Your task to perform on an android device: install app "PUBG MOBILE" Image 0: 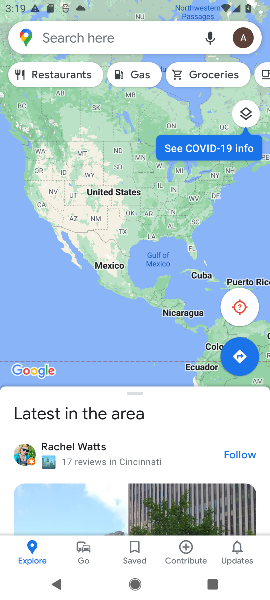
Step 0: press home button
Your task to perform on an android device: install app "PUBG MOBILE" Image 1: 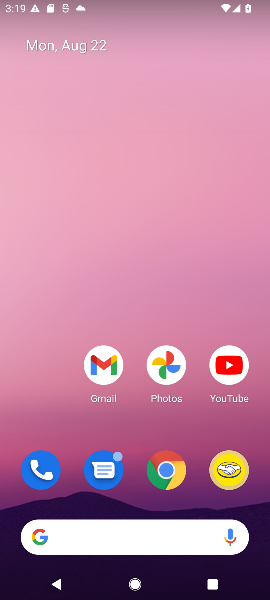
Step 1: drag from (70, 491) to (147, 125)
Your task to perform on an android device: install app "PUBG MOBILE" Image 2: 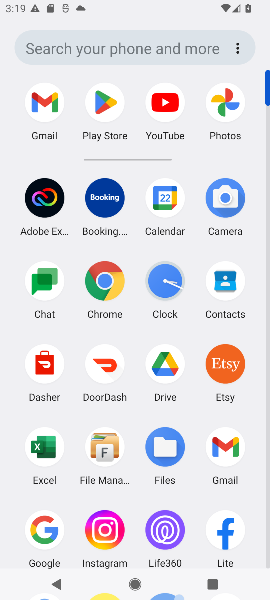
Step 2: click (99, 98)
Your task to perform on an android device: install app "PUBG MOBILE" Image 3: 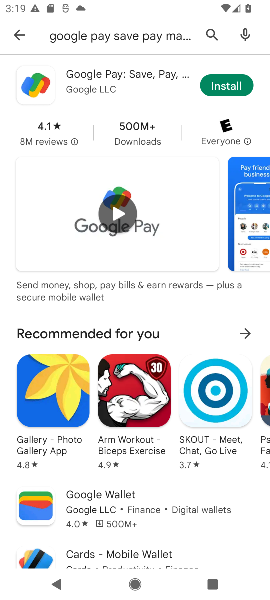
Step 3: click (23, 33)
Your task to perform on an android device: install app "PUBG MOBILE" Image 4: 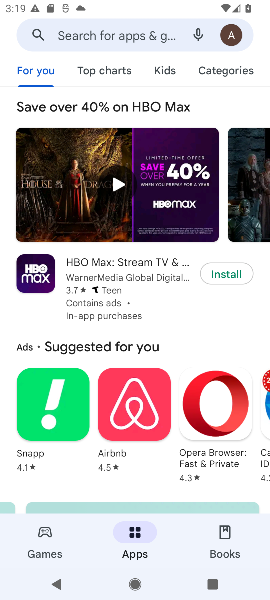
Step 4: click (121, 36)
Your task to perform on an android device: install app "PUBG MOBILE" Image 5: 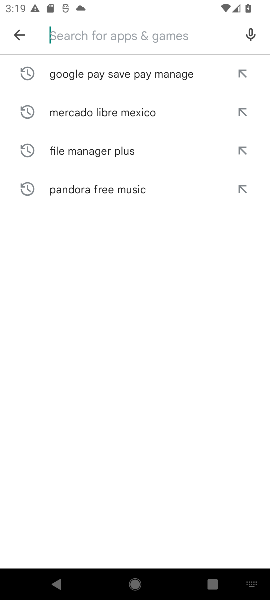
Step 5: type "PUBG MOBILE "
Your task to perform on an android device: install app "PUBG MOBILE" Image 6: 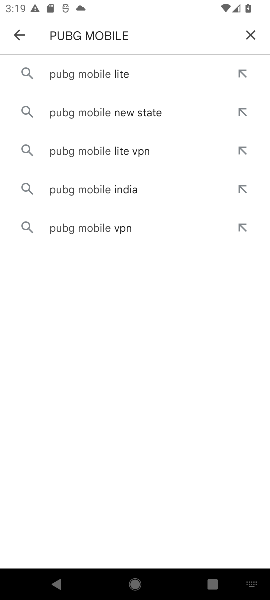
Step 6: drag from (106, 76) to (131, 108)
Your task to perform on an android device: install app "PUBG MOBILE" Image 7: 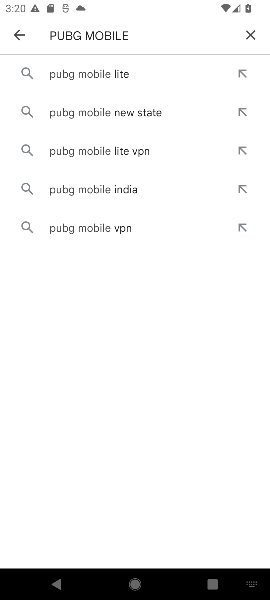
Step 7: click (128, 60)
Your task to perform on an android device: install app "PUBG MOBILE" Image 8: 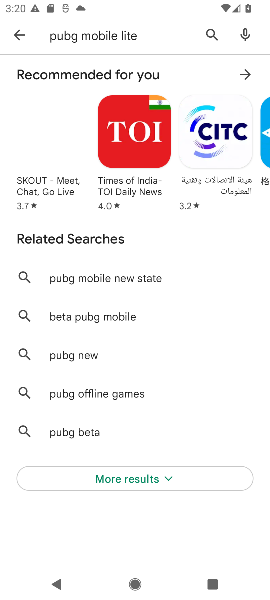
Step 8: click (26, 33)
Your task to perform on an android device: install app "PUBG MOBILE" Image 9: 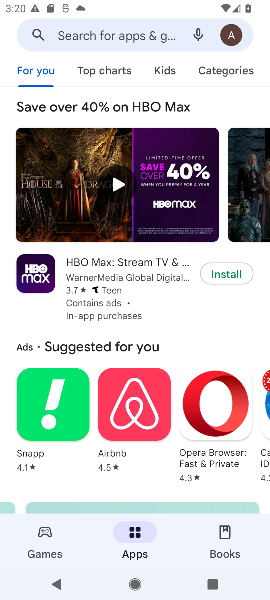
Step 9: click (146, 30)
Your task to perform on an android device: install app "PUBG MOBILE" Image 10: 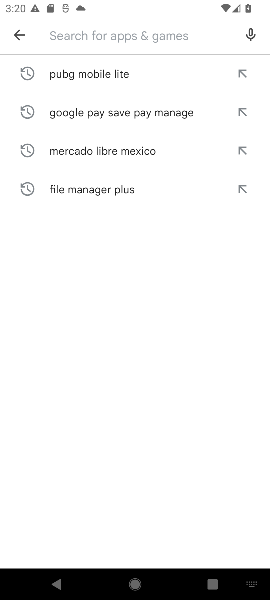
Step 10: type "PUBG MOBILE "
Your task to perform on an android device: install app "PUBG MOBILE" Image 11: 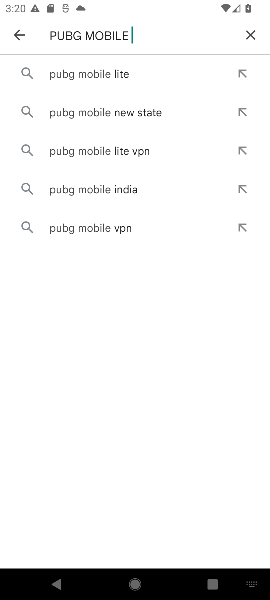
Step 11: click (102, 186)
Your task to perform on an android device: install app "PUBG MOBILE" Image 12: 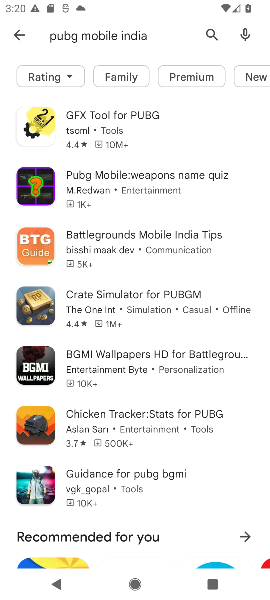
Step 12: click (119, 187)
Your task to perform on an android device: install app "PUBG MOBILE" Image 13: 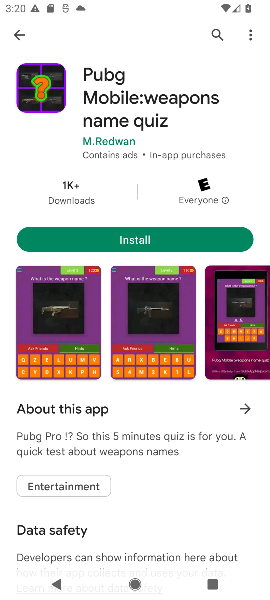
Step 13: click (155, 235)
Your task to perform on an android device: install app "PUBG MOBILE" Image 14: 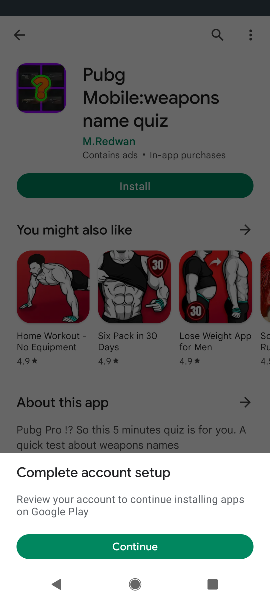
Step 14: task complete